Your task to perform on an android device: Search for vegetarian restaurants on Maps Image 0: 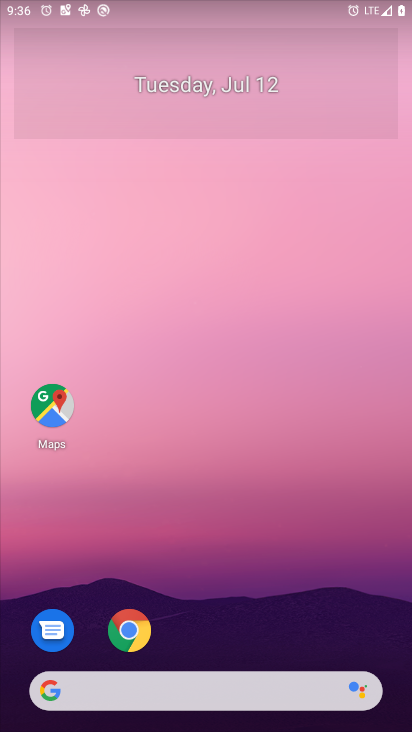
Step 0: click (38, 416)
Your task to perform on an android device: Search for vegetarian restaurants on Maps Image 1: 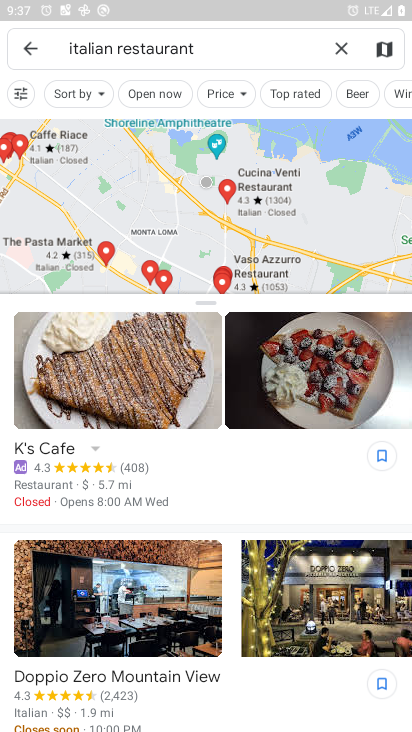
Step 1: click (339, 47)
Your task to perform on an android device: Search for vegetarian restaurants on Maps Image 2: 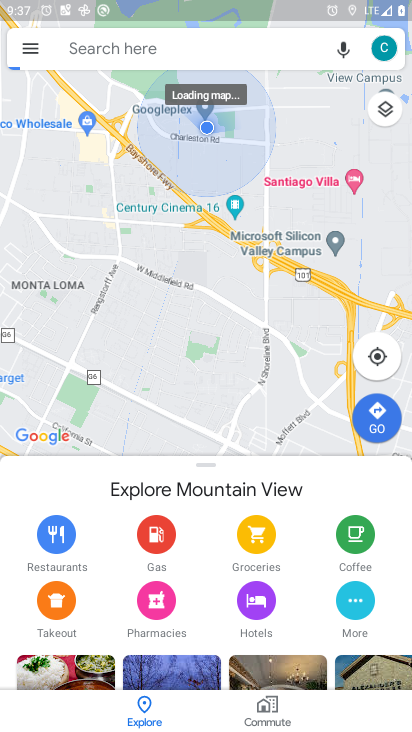
Step 2: type "vegetarian restaurants"
Your task to perform on an android device: Search for vegetarian restaurants on Maps Image 3: 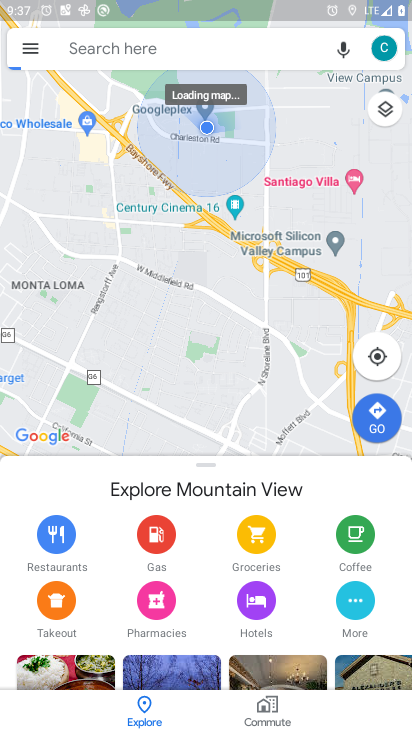
Step 3: click (223, 44)
Your task to perform on an android device: Search for vegetarian restaurants on Maps Image 4: 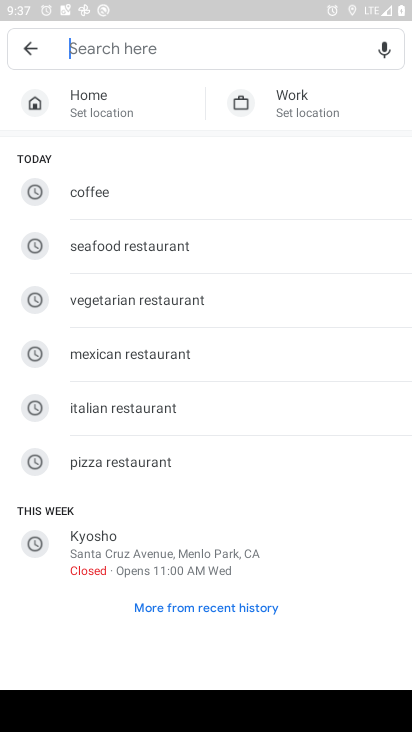
Step 4: click (105, 55)
Your task to perform on an android device: Search for vegetarian restaurants on Maps Image 5: 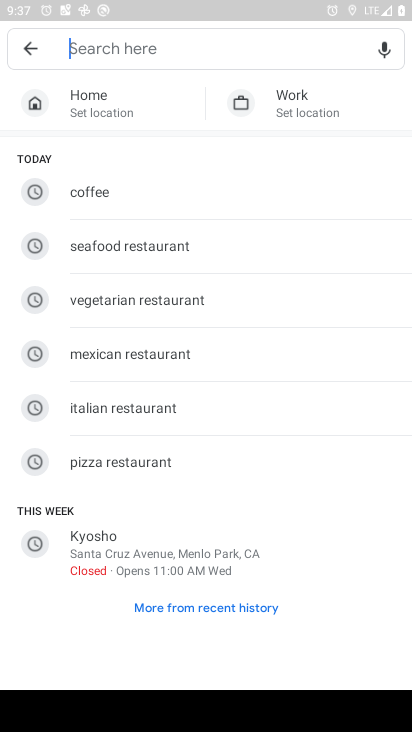
Step 5: type "vegetarian restaurants"
Your task to perform on an android device: Search for vegetarian restaurants on Maps Image 6: 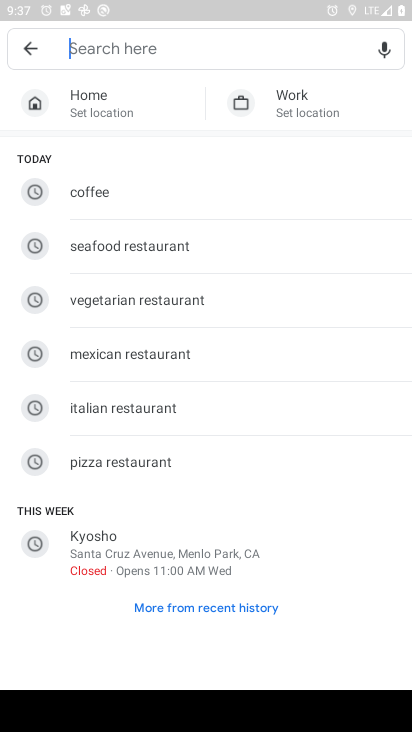
Step 6: click (132, 52)
Your task to perform on an android device: Search for vegetarian restaurants on Maps Image 7: 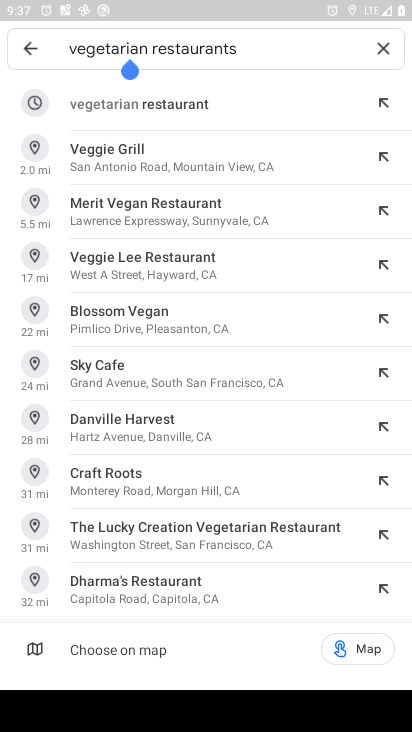
Step 7: press enter
Your task to perform on an android device: Search for vegetarian restaurants on Maps Image 8: 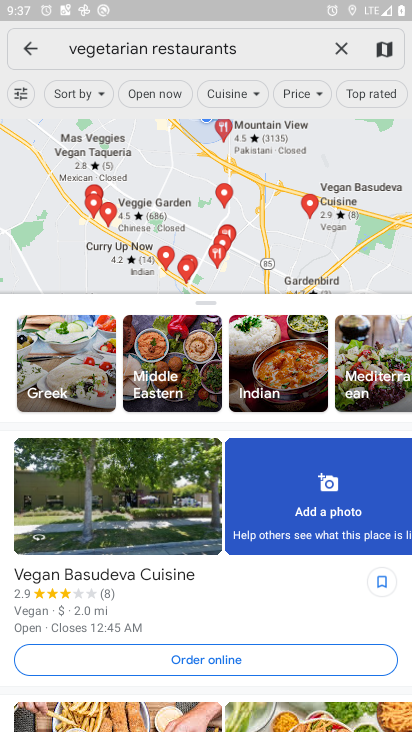
Step 8: task complete